Your task to perform on an android device: empty trash in google photos Image 0: 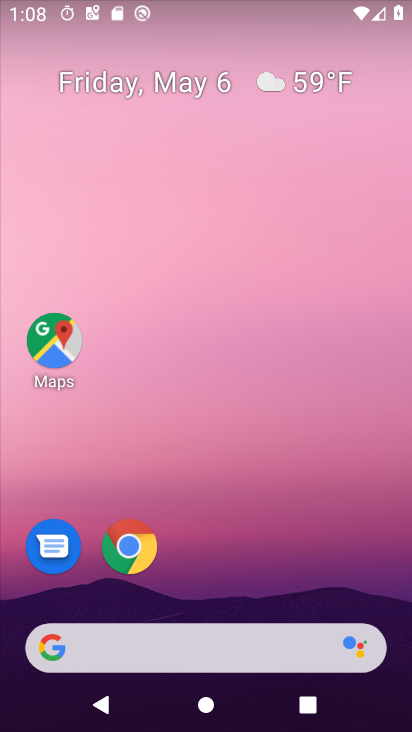
Step 0: drag from (271, 542) to (252, 170)
Your task to perform on an android device: empty trash in google photos Image 1: 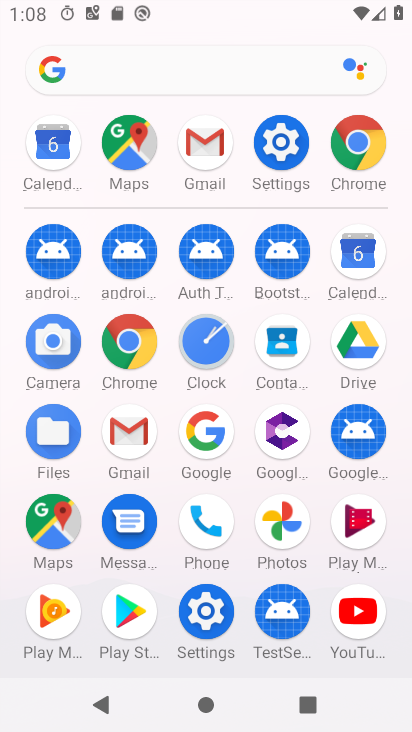
Step 1: click (273, 515)
Your task to perform on an android device: empty trash in google photos Image 2: 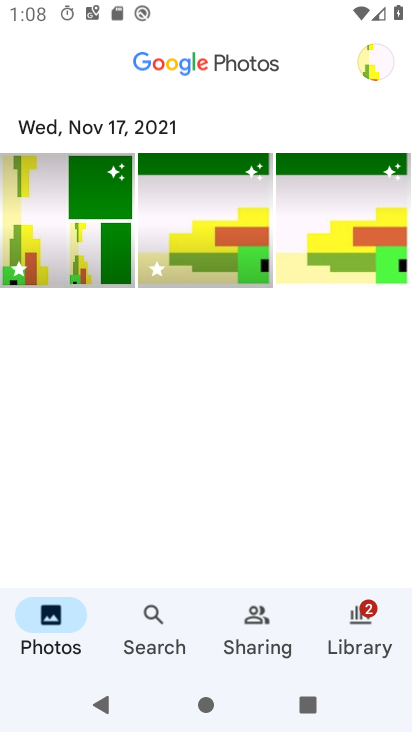
Step 2: click (149, 614)
Your task to perform on an android device: empty trash in google photos Image 3: 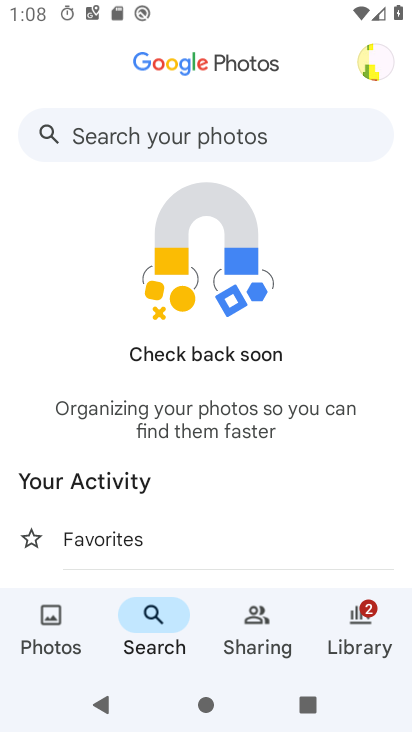
Step 3: drag from (159, 496) to (174, 406)
Your task to perform on an android device: empty trash in google photos Image 4: 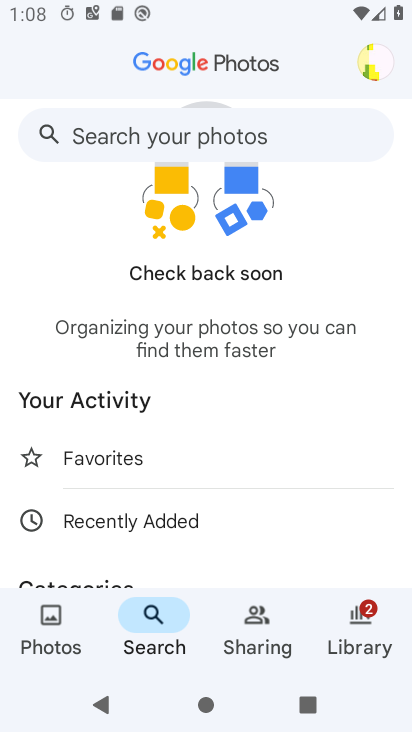
Step 4: click (374, 654)
Your task to perform on an android device: empty trash in google photos Image 5: 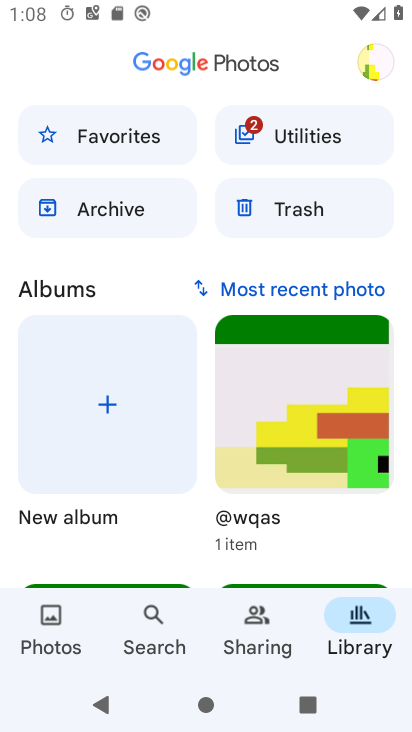
Step 5: click (306, 185)
Your task to perform on an android device: empty trash in google photos Image 6: 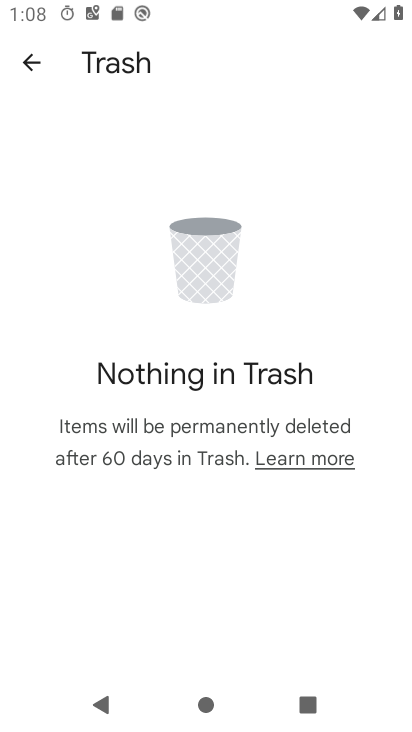
Step 6: task complete